Your task to perform on an android device: Open CNN.com Image 0: 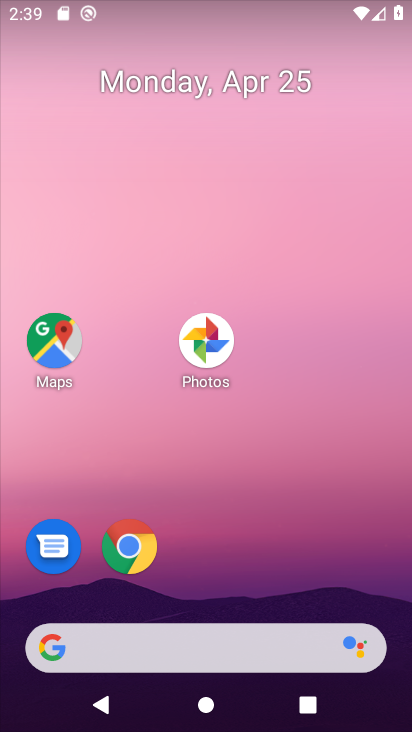
Step 0: click (137, 552)
Your task to perform on an android device: Open CNN.com Image 1: 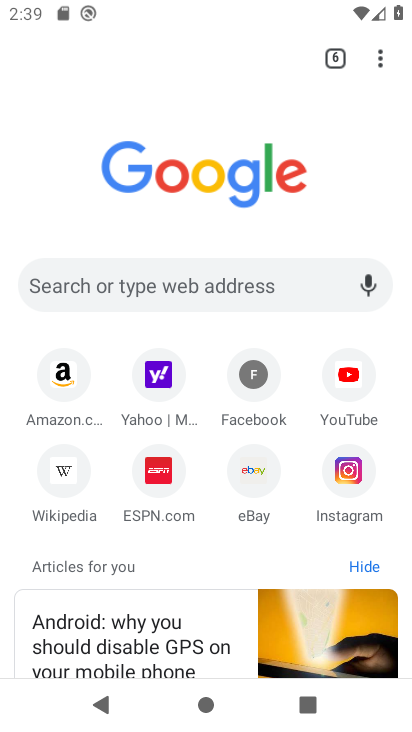
Step 1: click (239, 293)
Your task to perform on an android device: Open CNN.com Image 2: 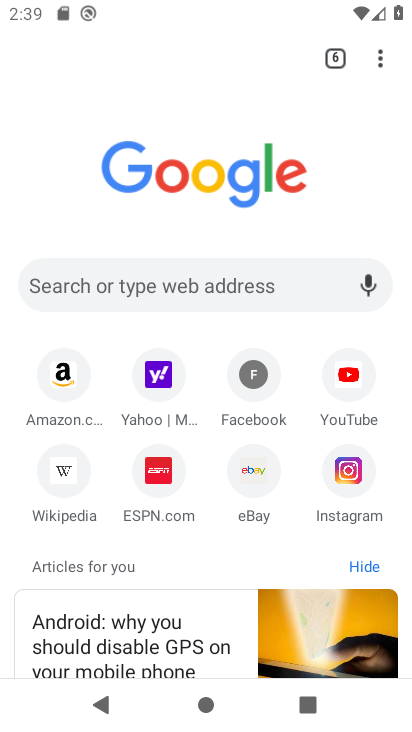
Step 2: type "CNN.com"
Your task to perform on an android device: Open CNN.com Image 3: 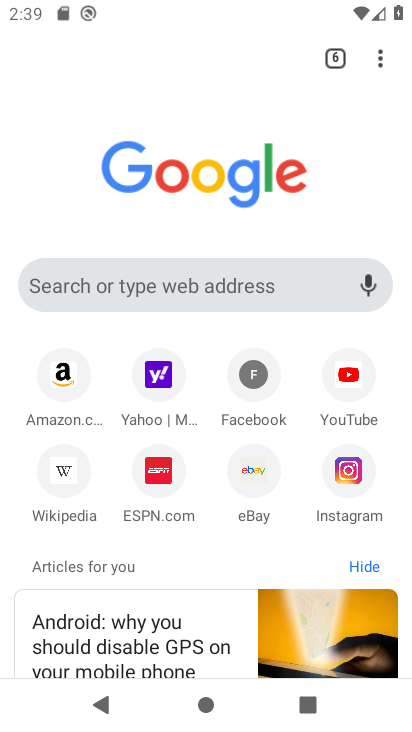
Step 3: click (284, 262)
Your task to perform on an android device: Open CNN.com Image 4: 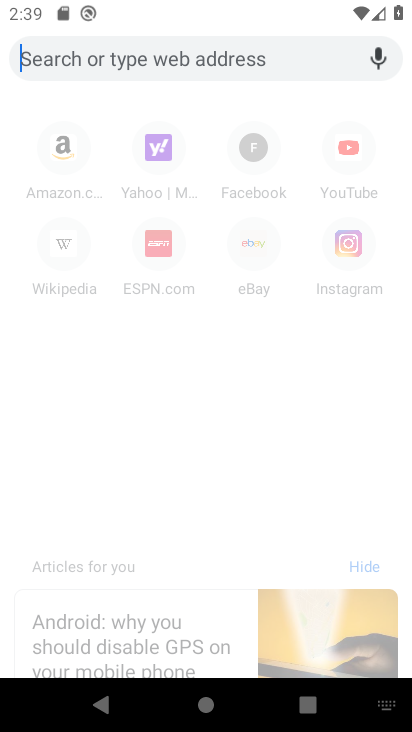
Step 4: type "CNN.com"
Your task to perform on an android device: Open CNN.com Image 5: 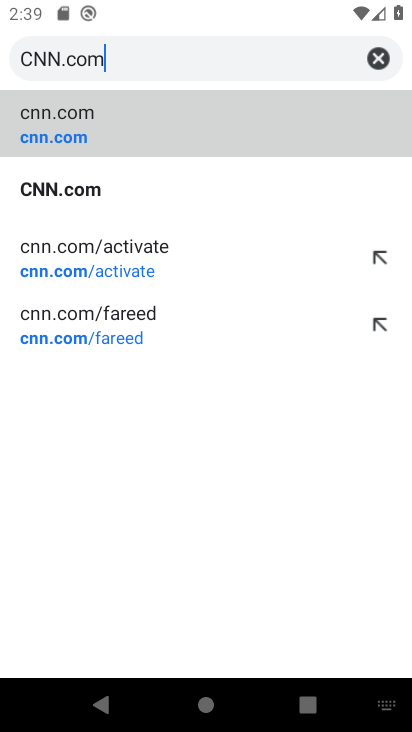
Step 5: click (148, 169)
Your task to perform on an android device: Open CNN.com Image 6: 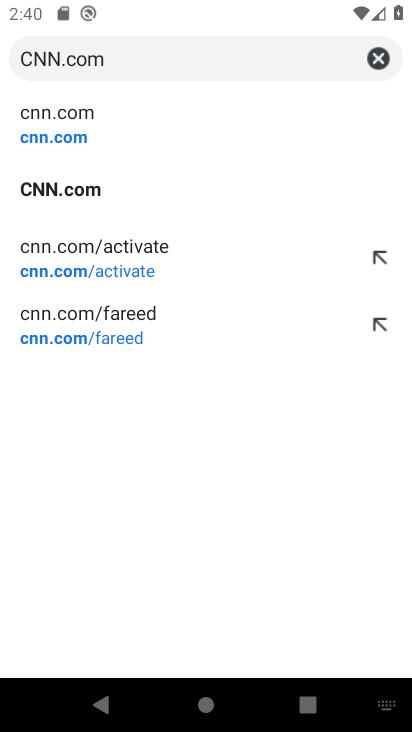
Step 6: click (110, 184)
Your task to perform on an android device: Open CNN.com Image 7: 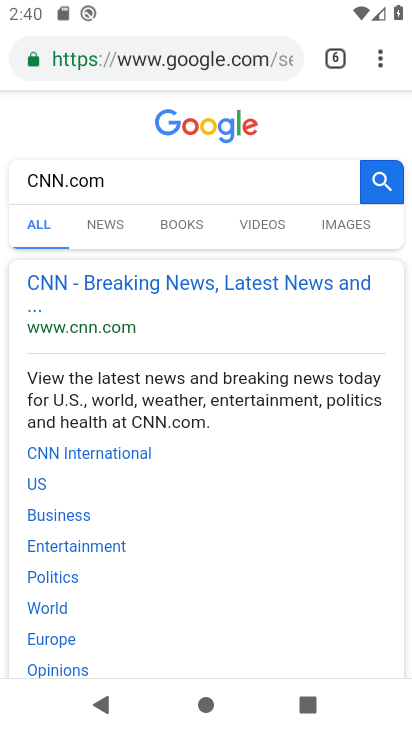
Step 7: task complete